Your task to perform on an android device: change the clock style Image 0: 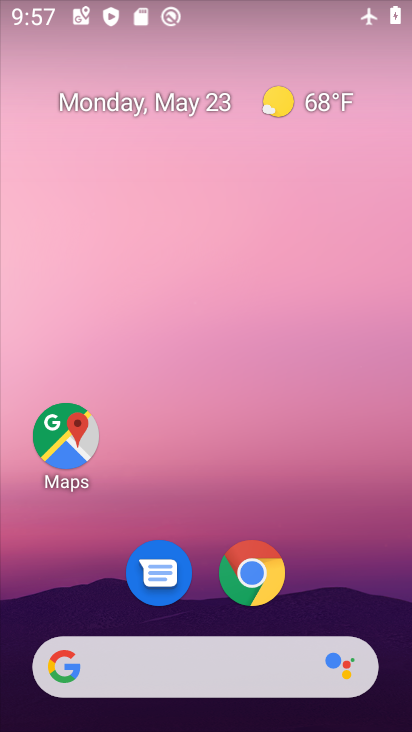
Step 0: drag from (271, 631) to (320, 147)
Your task to perform on an android device: change the clock style Image 1: 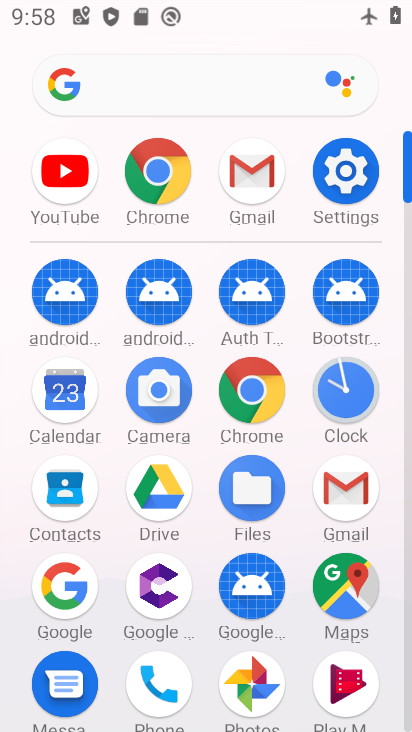
Step 1: click (364, 390)
Your task to perform on an android device: change the clock style Image 2: 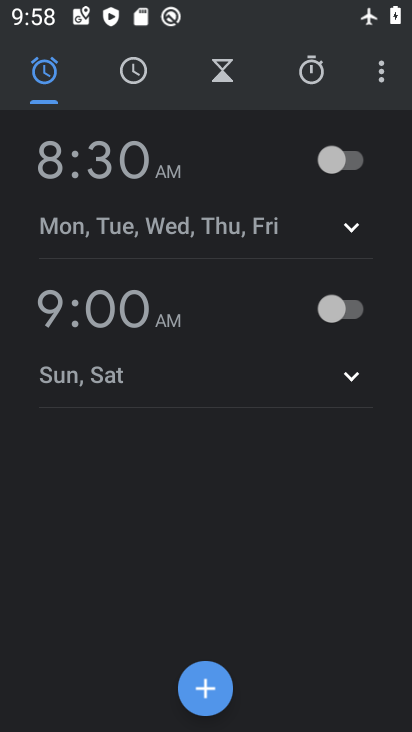
Step 2: click (388, 74)
Your task to perform on an android device: change the clock style Image 3: 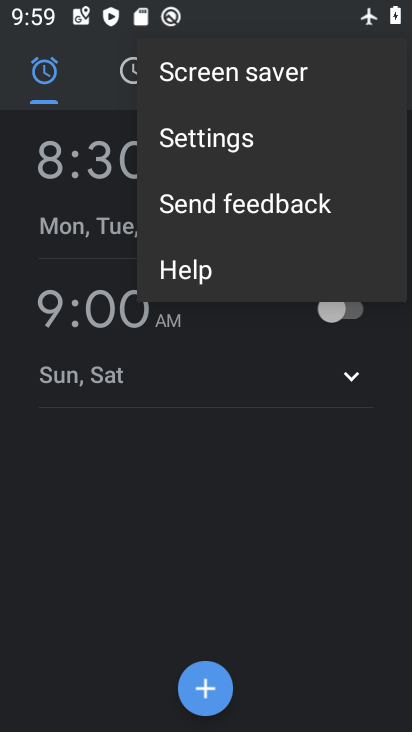
Step 3: click (235, 145)
Your task to perform on an android device: change the clock style Image 4: 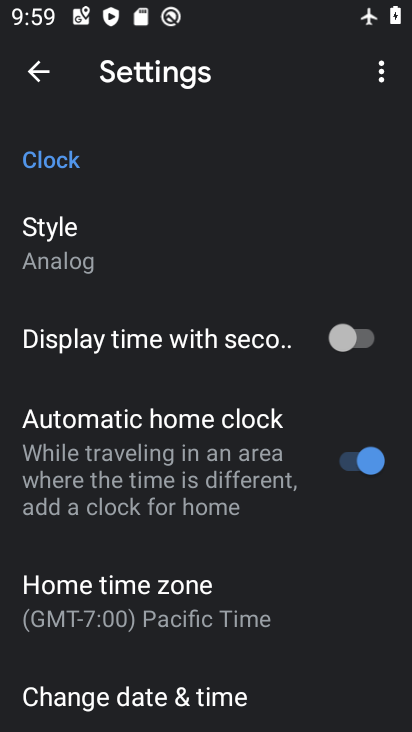
Step 4: click (136, 220)
Your task to perform on an android device: change the clock style Image 5: 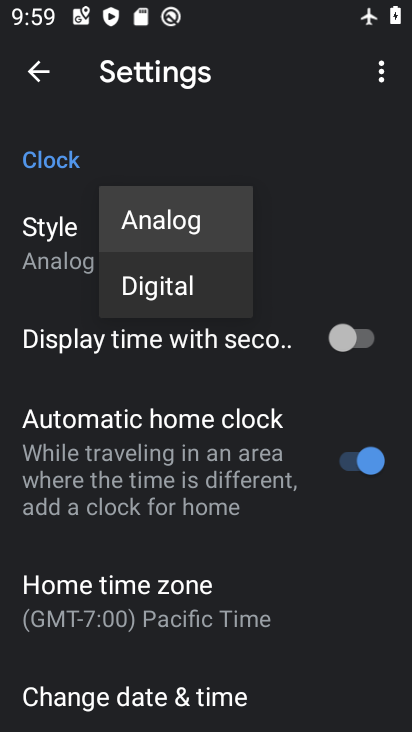
Step 5: click (183, 295)
Your task to perform on an android device: change the clock style Image 6: 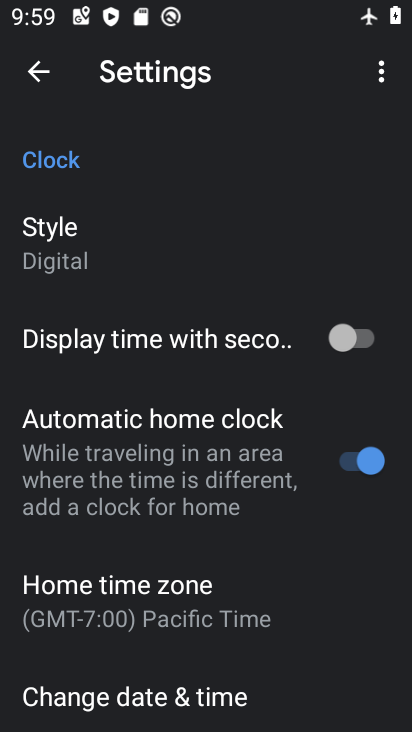
Step 6: task complete